Your task to perform on an android device: Search for Mexican restaurants on Maps Image 0: 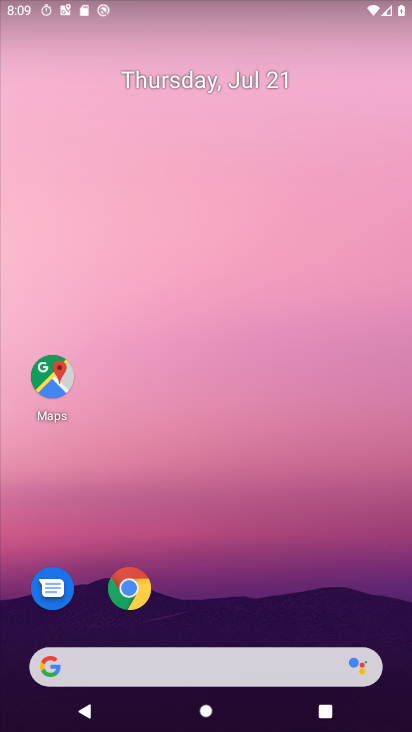
Step 0: drag from (256, 681) to (244, 261)
Your task to perform on an android device: Search for Mexican restaurants on Maps Image 1: 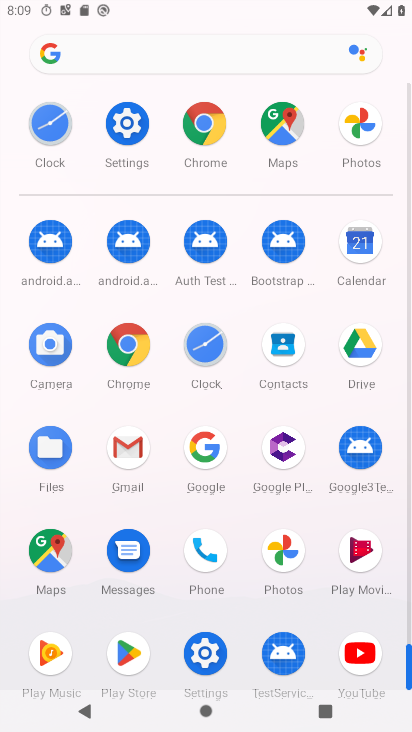
Step 1: click (49, 541)
Your task to perform on an android device: Search for Mexican restaurants on Maps Image 2: 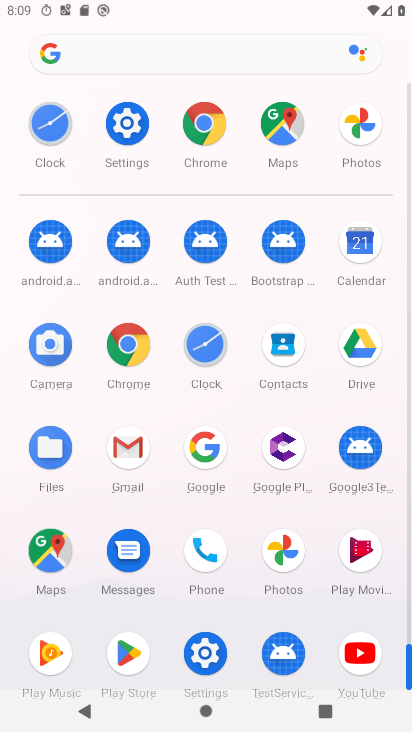
Step 2: click (49, 542)
Your task to perform on an android device: Search for Mexican restaurants on Maps Image 3: 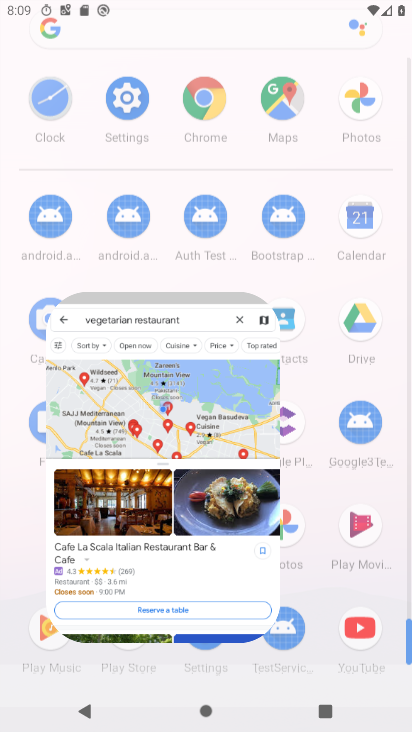
Step 3: click (48, 546)
Your task to perform on an android device: Search for Mexican restaurants on Maps Image 4: 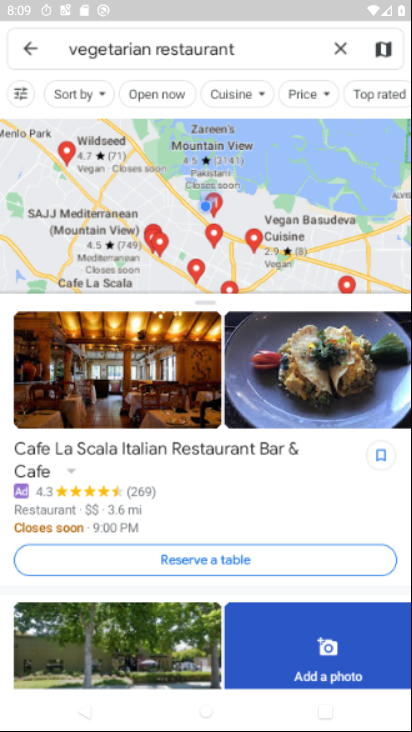
Step 4: click (48, 546)
Your task to perform on an android device: Search for Mexican restaurants on Maps Image 5: 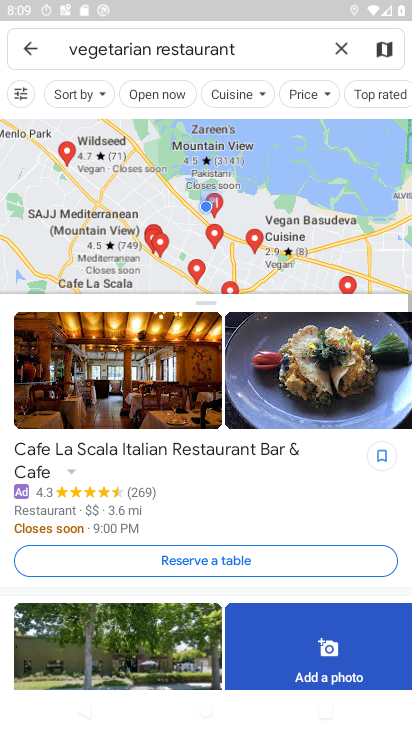
Step 5: click (339, 46)
Your task to perform on an android device: Search for Mexican restaurants on Maps Image 6: 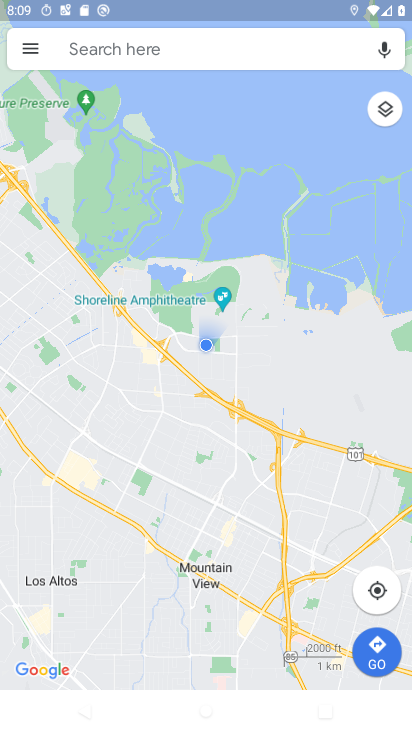
Step 6: click (80, 43)
Your task to perform on an android device: Search for Mexican restaurants on Maps Image 7: 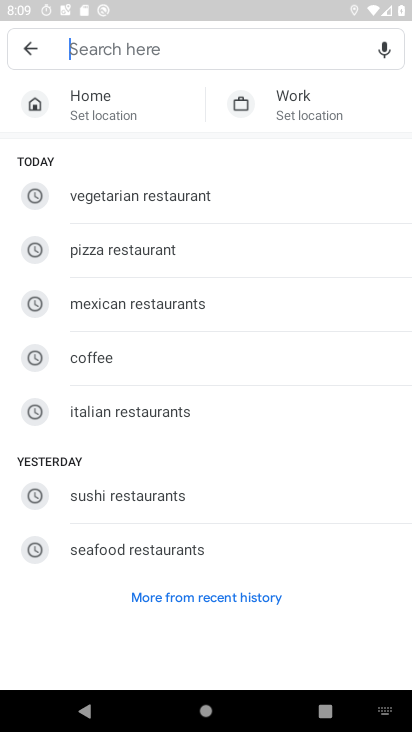
Step 7: click (132, 304)
Your task to perform on an android device: Search for Mexican restaurants on Maps Image 8: 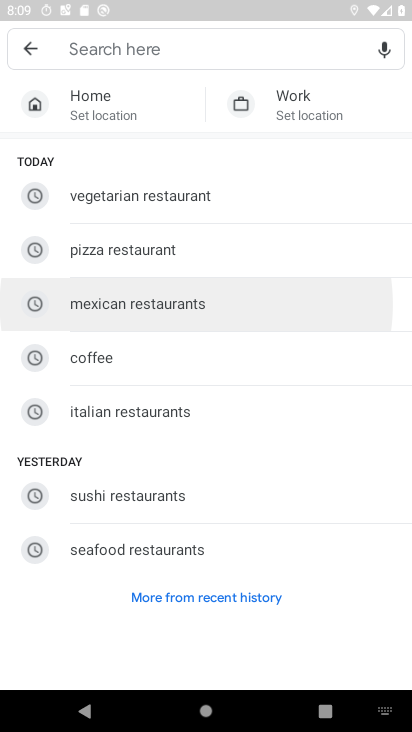
Step 8: click (131, 302)
Your task to perform on an android device: Search for Mexican restaurants on Maps Image 9: 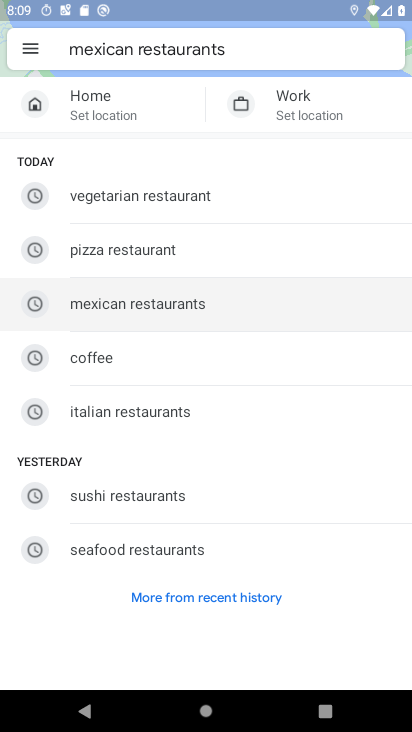
Step 9: click (131, 302)
Your task to perform on an android device: Search for Mexican restaurants on Maps Image 10: 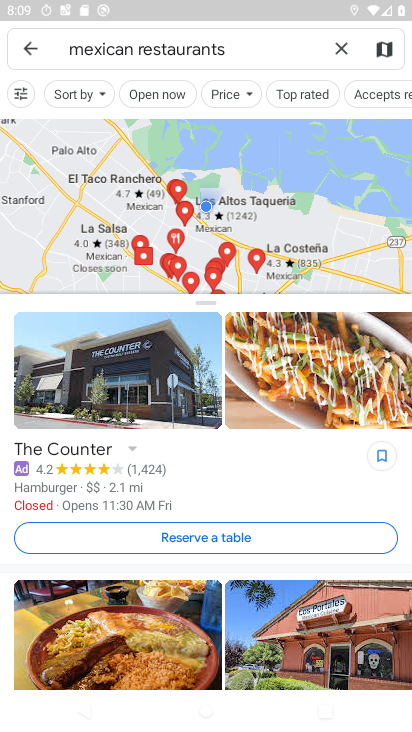
Step 10: task complete